Your task to perform on an android device: Empty the shopping cart on costco.com. Add "amazon basics triple a" to the cart on costco.com, then select checkout. Image 0: 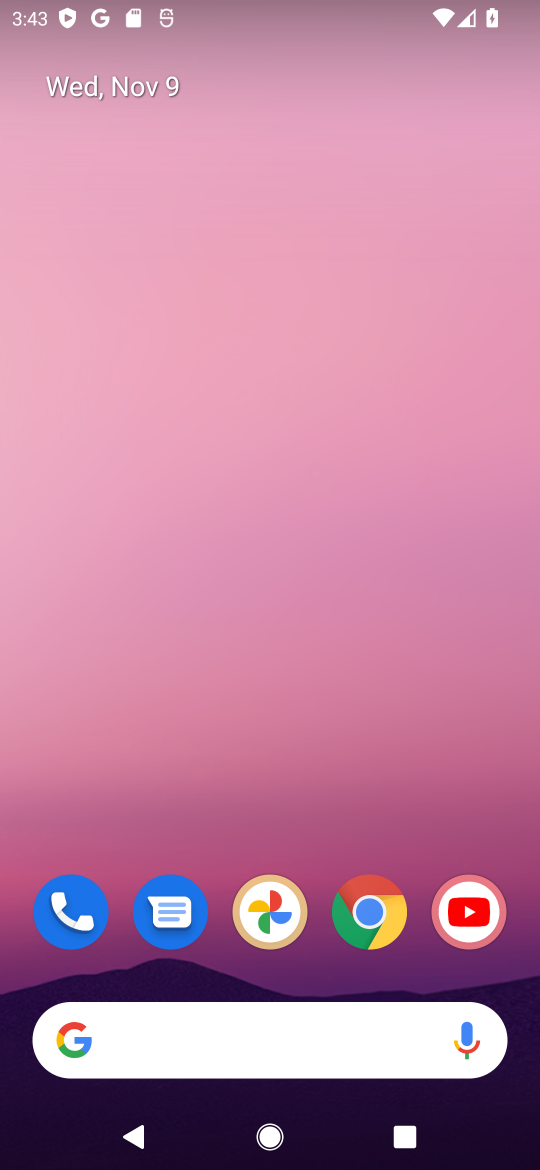
Step 0: click (371, 911)
Your task to perform on an android device: Empty the shopping cart on costco.com. Add "amazon basics triple a" to the cart on costco.com, then select checkout. Image 1: 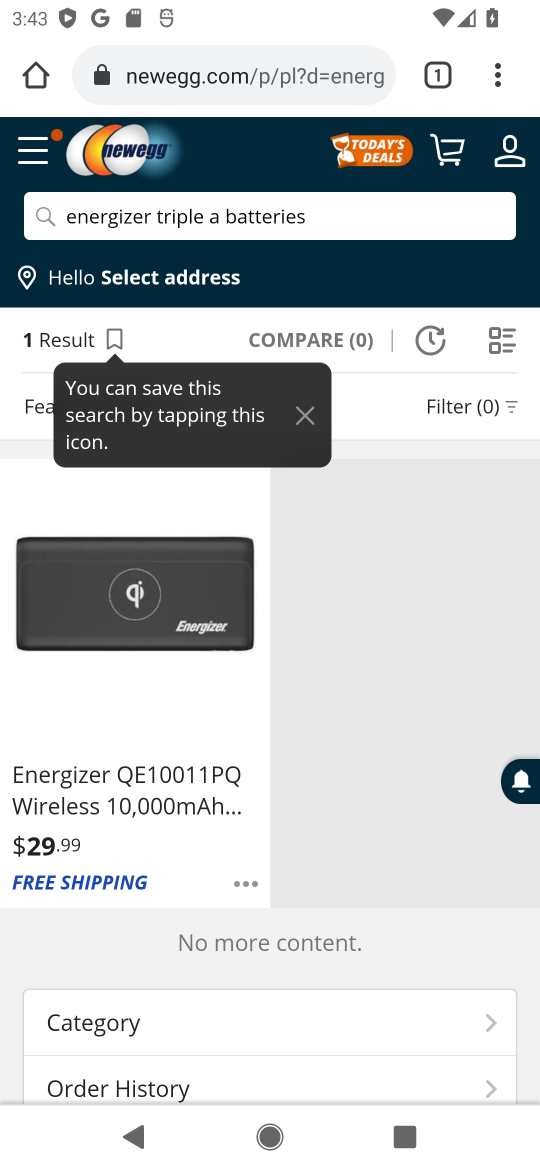
Step 1: click (268, 78)
Your task to perform on an android device: Empty the shopping cart on costco.com. Add "amazon basics triple a" to the cart on costco.com, then select checkout. Image 2: 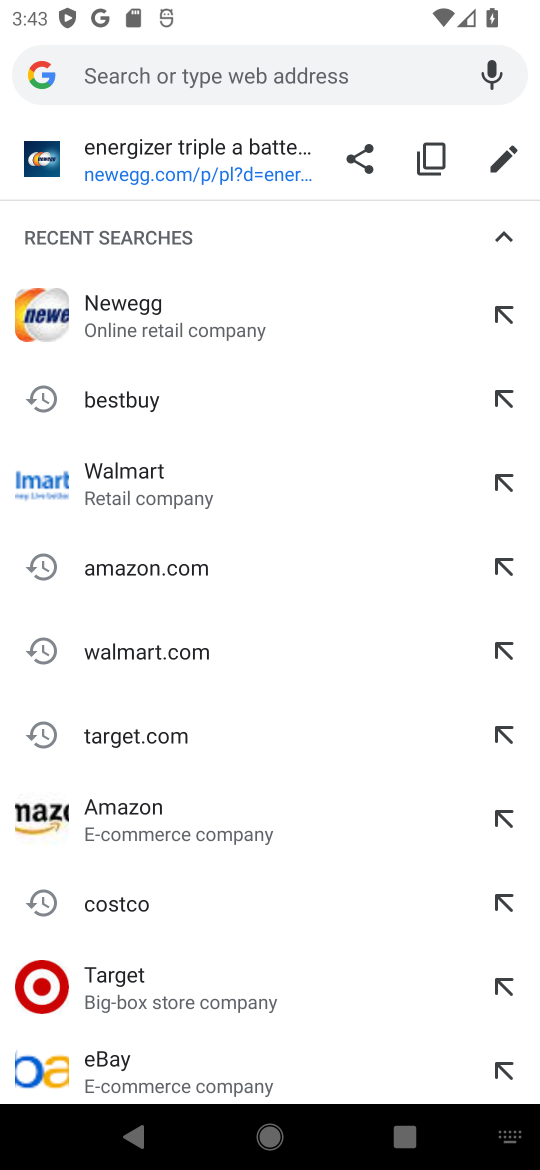
Step 2: click (268, 78)
Your task to perform on an android device: Empty the shopping cart on costco.com. Add "amazon basics triple a" to the cart on costco.com, then select checkout. Image 3: 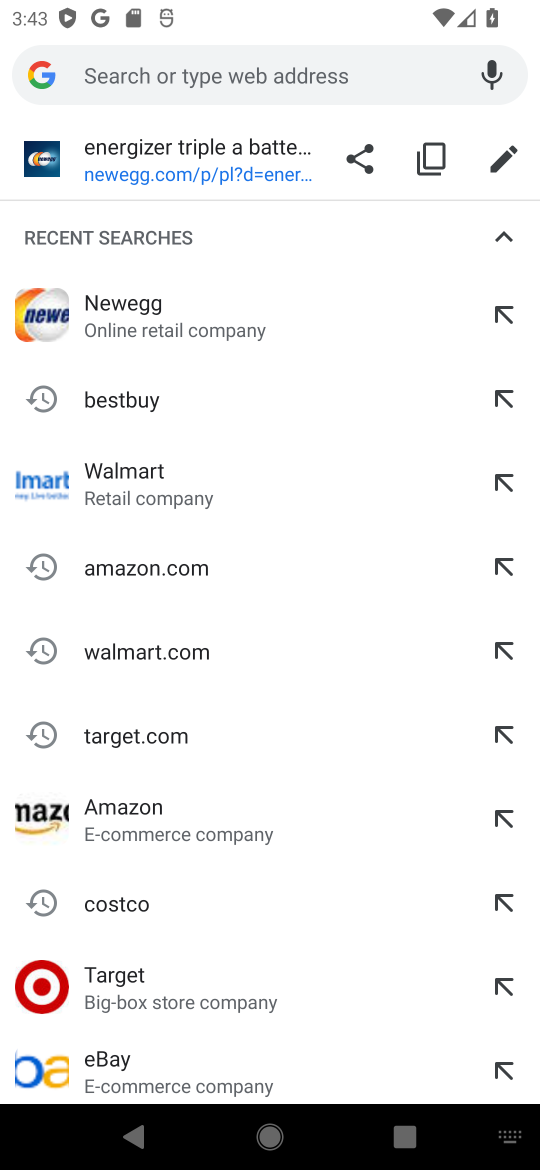
Step 3: type "costco.com"
Your task to perform on an android device: Empty the shopping cart on costco.com. Add "amazon basics triple a" to the cart on costco.com, then select checkout. Image 4: 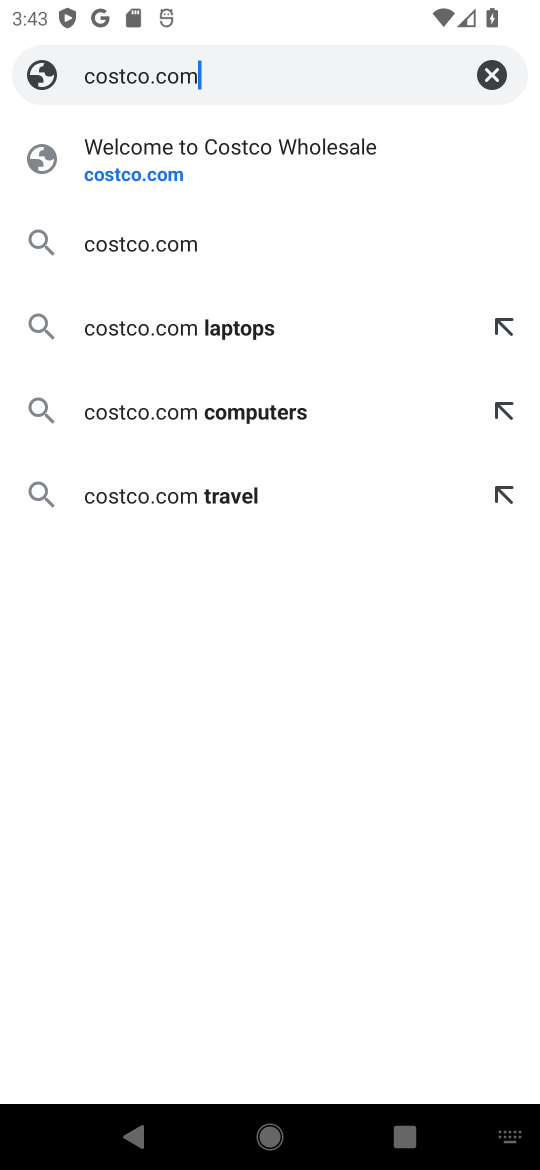
Step 4: click (157, 254)
Your task to perform on an android device: Empty the shopping cart on costco.com. Add "amazon basics triple a" to the cart on costco.com, then select checkout. Image 5: 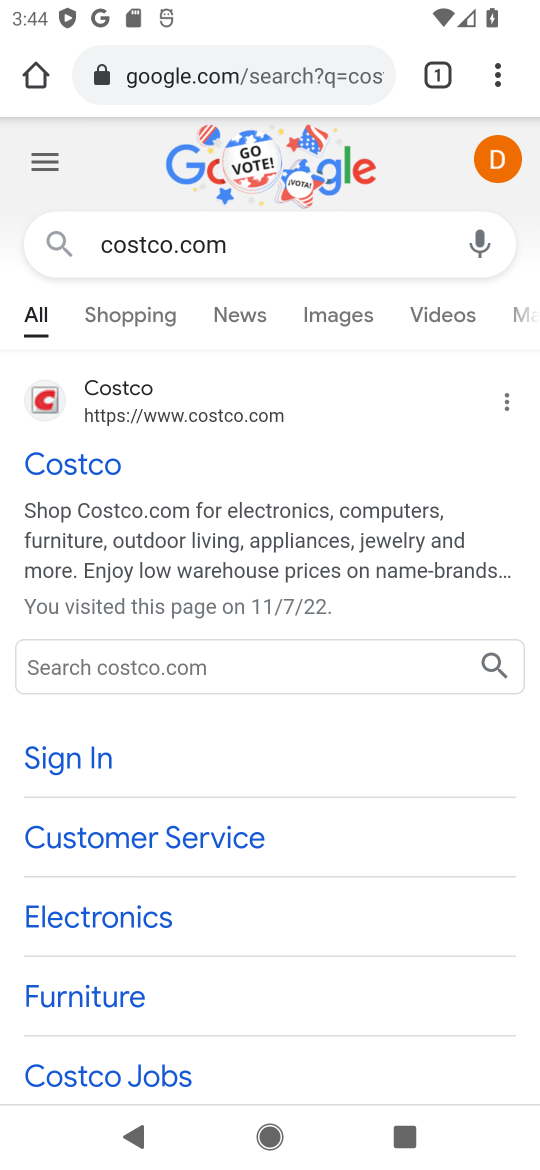
Step 5: click (193, 467)
Your task to perform on an android device: Empty the shopping cart on costco.com. Add "amazon basics triple a" to the cart on costco.com, then select checkout. Image 6: 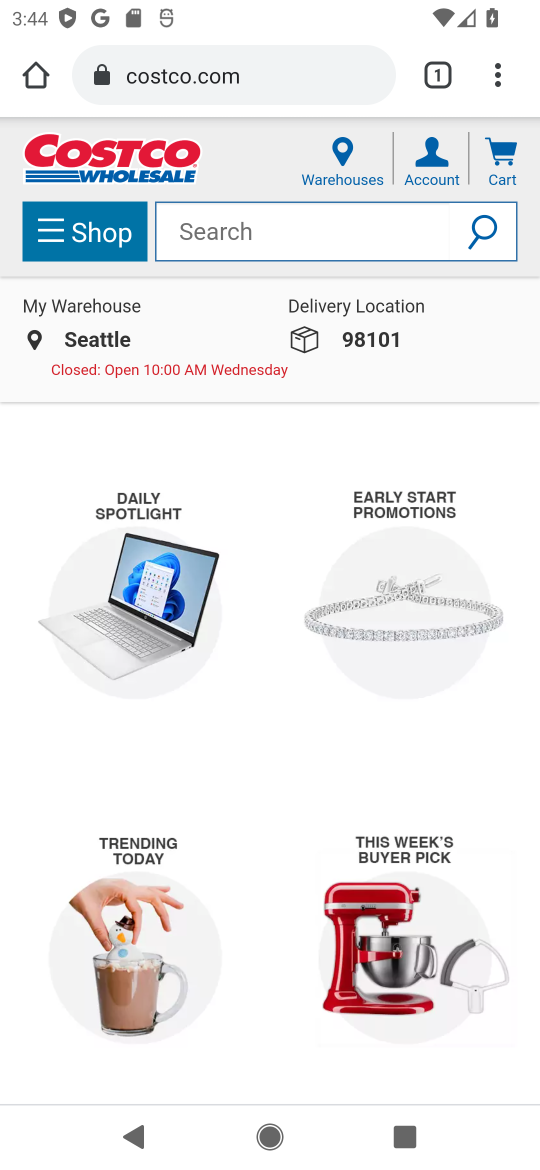
Step 6: click (501, 154)
Your task to perform on an android device: Empty the shopping cart on costco.com. Add "amazon basics triple a" to the cart on costco.com, then select checkout. Image 7: 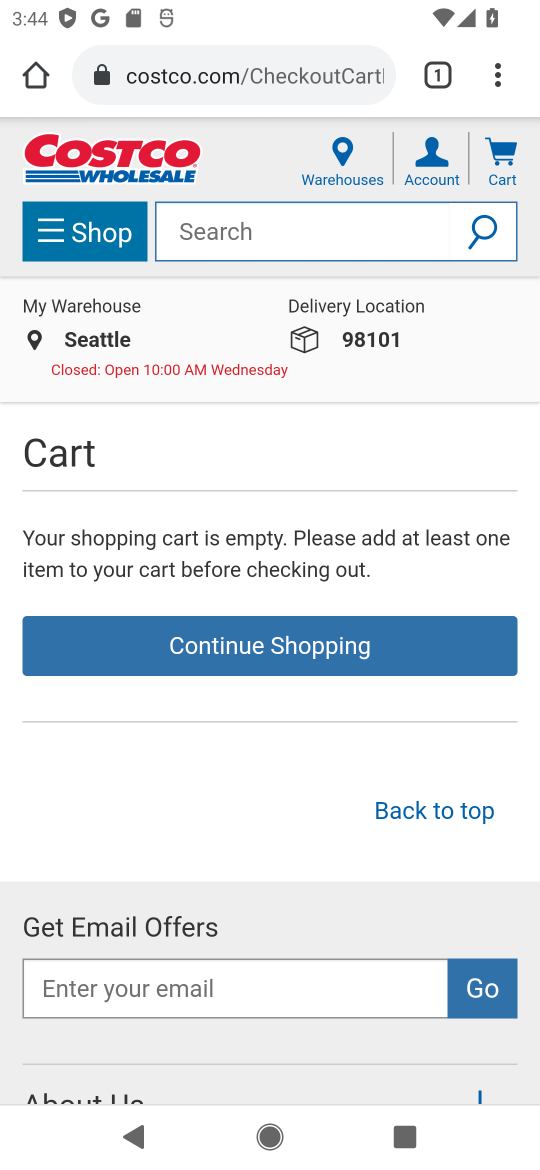
Step 7: click (310, 241)
Your task to perform on an android device: Empty the shopping cart on costco.com. Add "amazon basics triple a" to the cart on costco.com, then select checkout. Image 8: 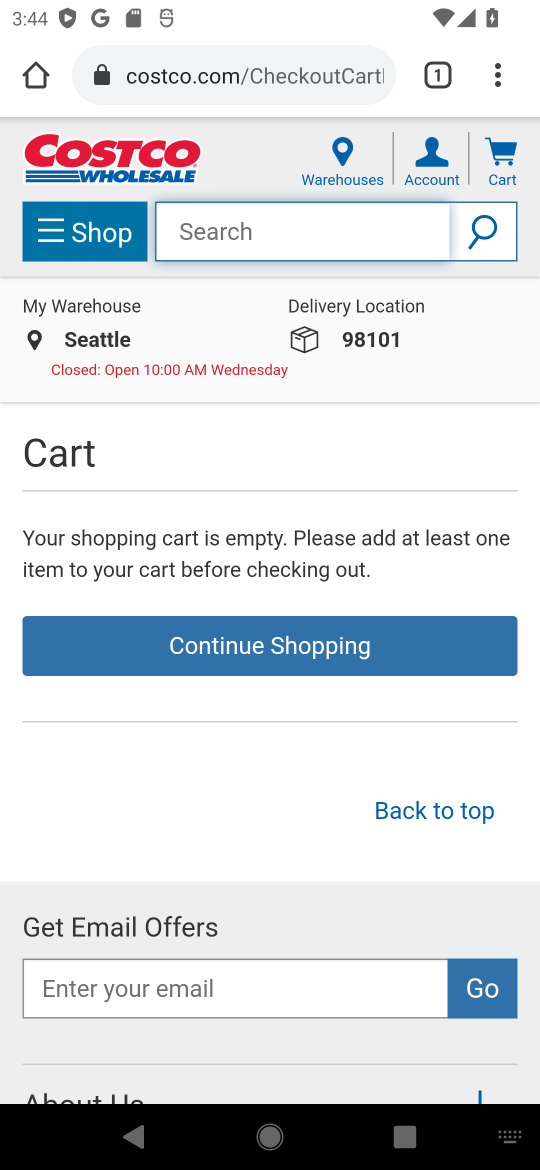
Step 8: type "amazon basics triple a"
Your task to perform on an android device: Empty the shopping cart on costco.com. Add "amazon basics triple a" to the cart on costco.com, then select checkout. Image 9: 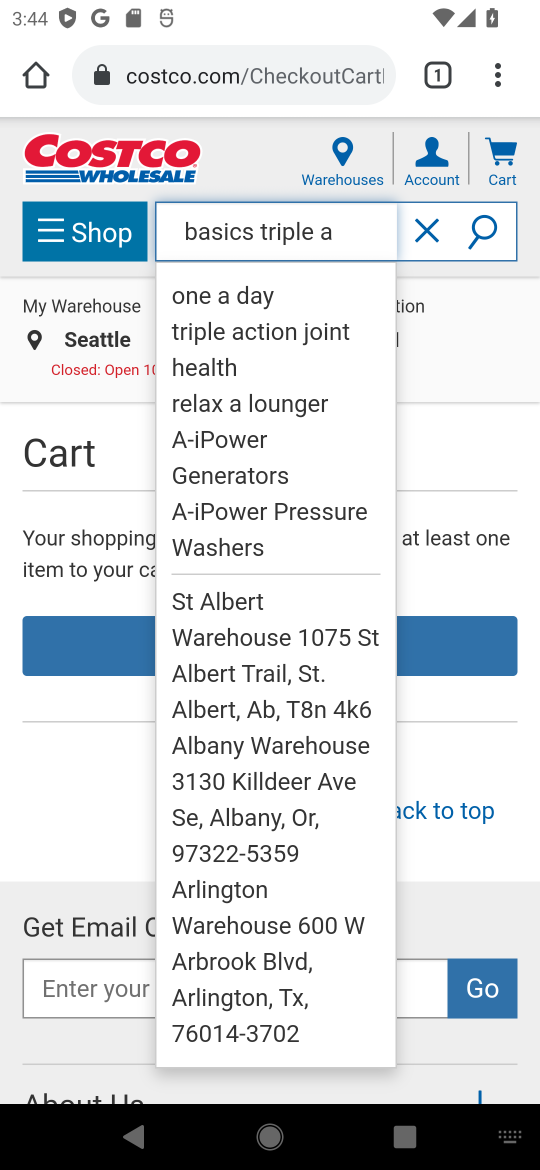
Step 9: click (495, 237)
Your task to perform on an android device: Empty the shopping cart on costco.com. Add "amazon basics triple a" to the cart on costco.com, then select checkout. Image 10: 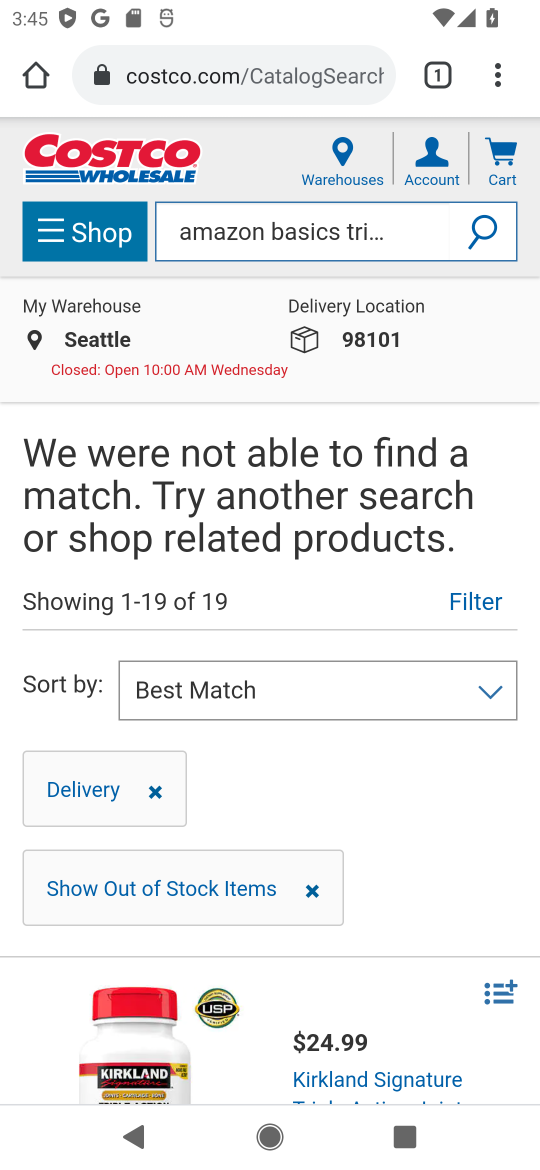
Step 10: task complete